Your task to perform on an android device: Open the phone app and click the voicemail tab. Image 0: 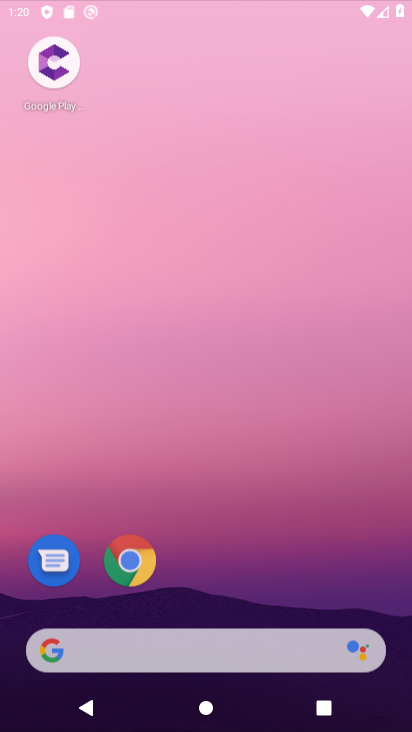
Step 0: click (144, 582)
Your task to perform on an android device: Open the phone app and click the voicemail tab. Image 1: 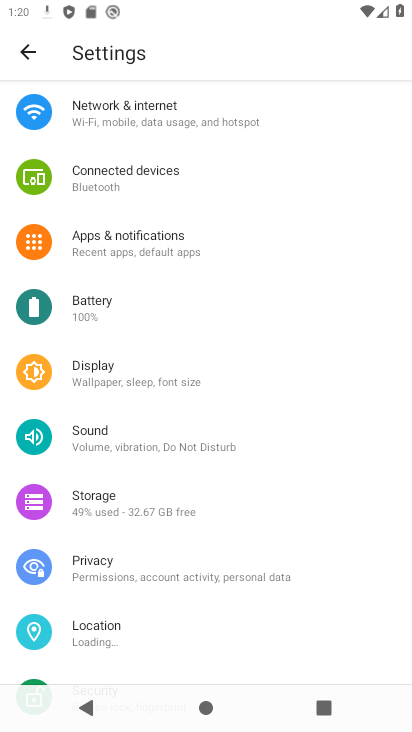
Step 1: press home button
Your task to perform on an android device: Open the phone app and click the voicemail tab. Image 2: 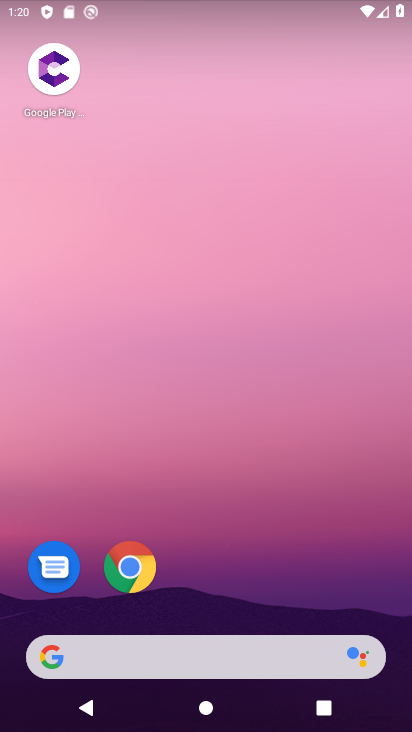
Step 2: drag from (266, 617) to (300, 235)
Your task to perform on an android device: Open the phone app and click the voicemail tab. Image 3: 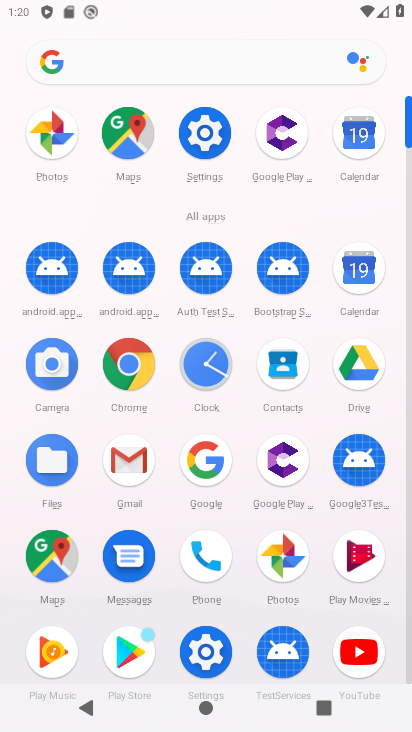
Step 3: drag from (227, 579) to (234, 319)
Your task to perform on an android device: Open the phone app and click the voicemail tab. Image 4: 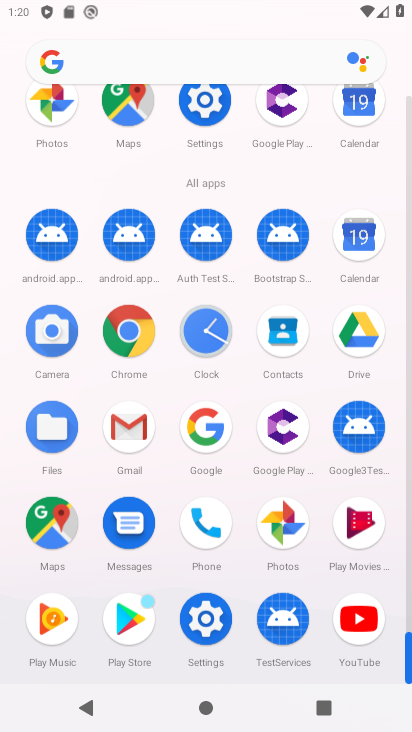
Step 4: click (217, 519)
Your task to perform on an android device: Open the phone app and click the voicemail tab. Image 5: 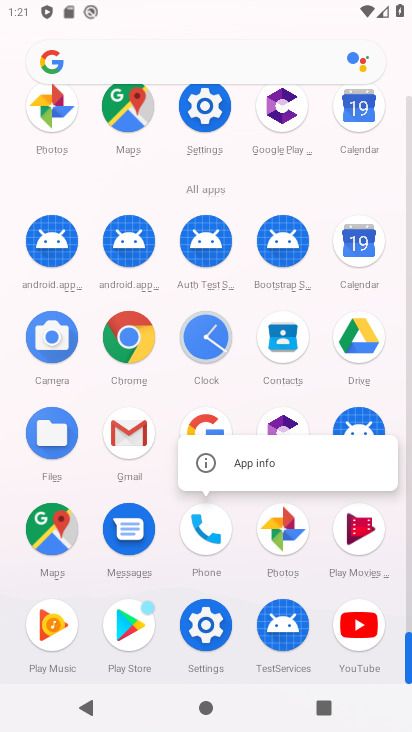
Step 5: click (210, 538)
Your task to perform on an android device: Open the phone app and click the voicemail tab. Image 6: 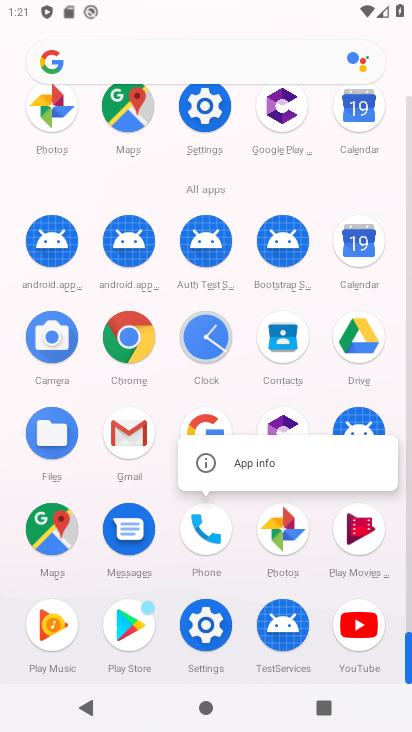
Step 6: click (213, 535)
Your task to perform on an android device: Open the phone app and click the voicemail tab. Image 7: 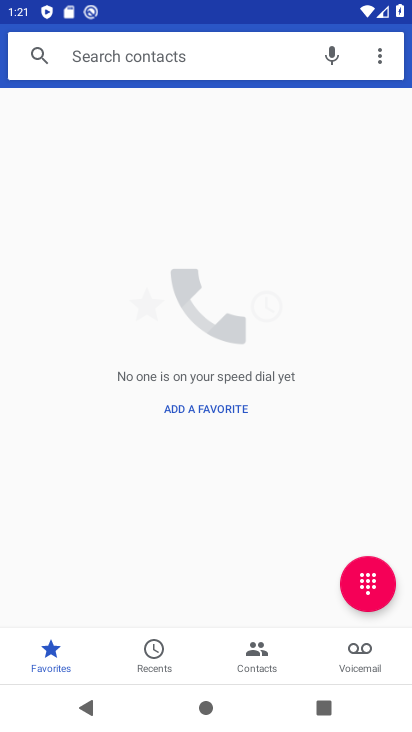
Step 7: click (368, 656)
Your task to perform on an android device: Open the phone app and click the voicemail tab. Image 8: 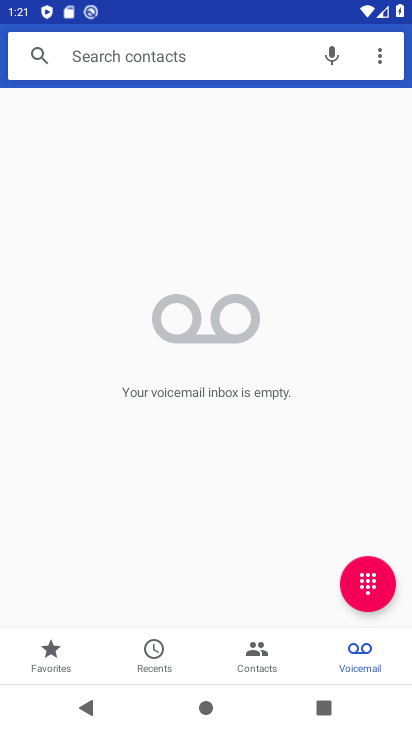
Step 8: task complete